Your task to perform on an android device: Go to privacy settings Image 0: 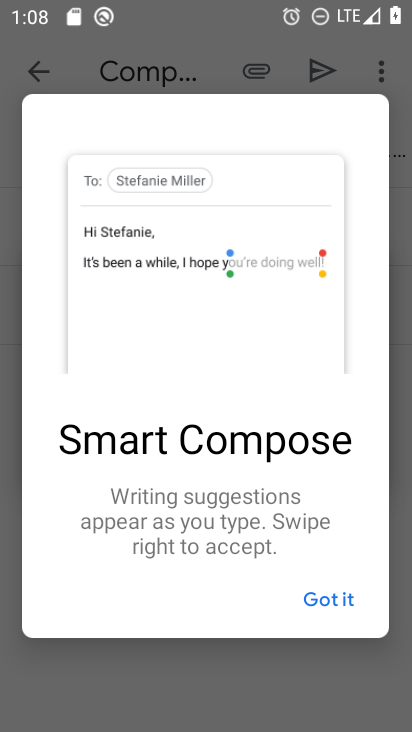
Step 0: press home button
Your task to perform on an android device: Go to privacy settings Image 1: 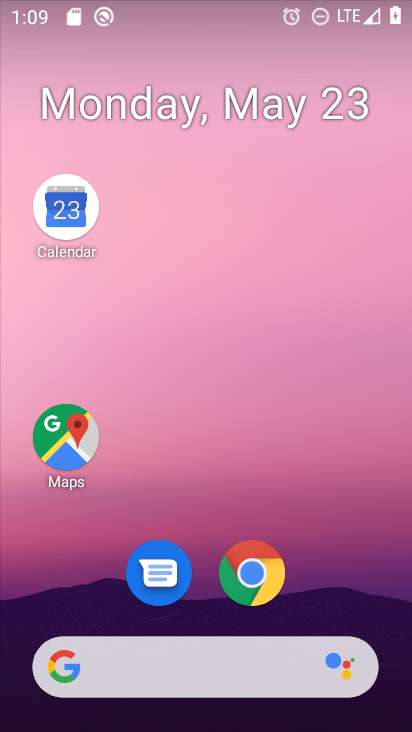
Step 1: drag from (321, 608) to (294, 93)
Your task to perform on an android device: Go to privacy settings Image 2: 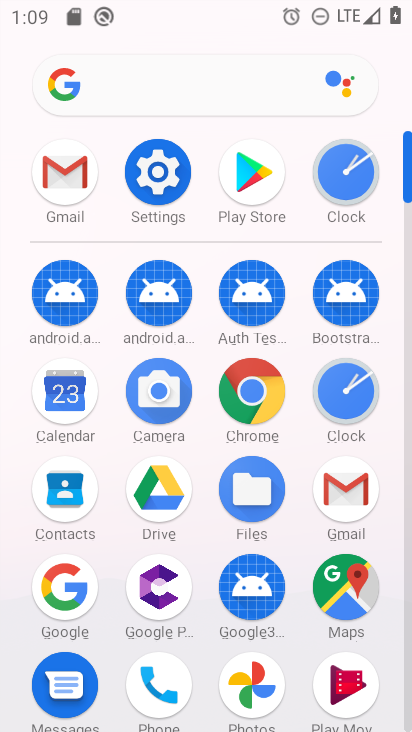
Step 2: click (172, 167)
Your task to perform on an android device: Go to privacy settings Image 3: 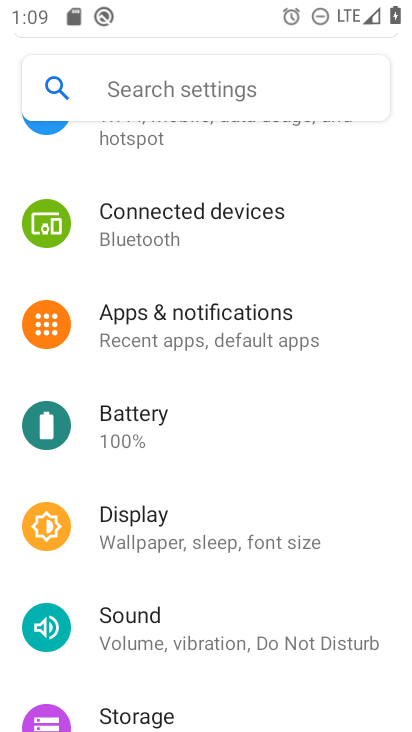
Step 3: drag from (263, 648) to (293, 439)
Your task to perform on an android device: Go to privacy settings Image 4: 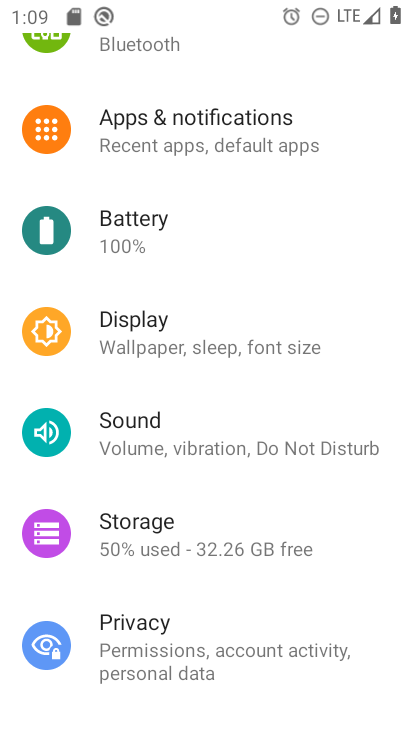
Step 4: click (185, 645)
Your task to perform on an android device: Go to privacy settings Image 5: 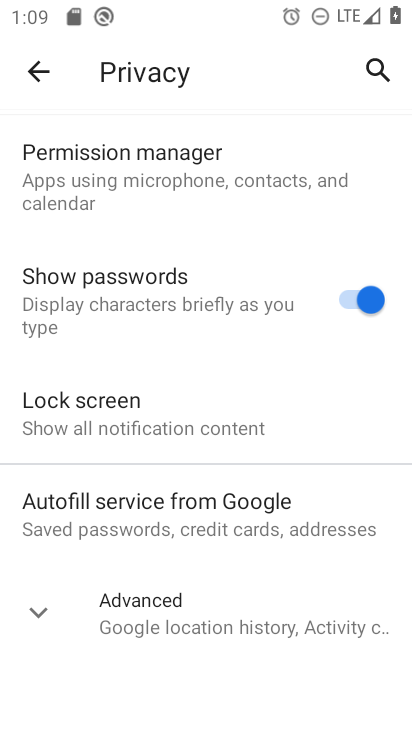
Step 5: task complete